Your task to perform on an android device: Do I have any events this weekend? Image 0: 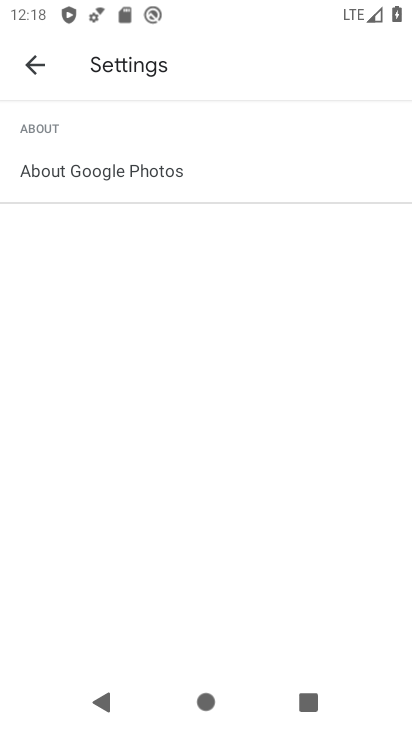
Step 0: press home button
Your task to perform on an android device: Do I have any events this weekend? Image 1: 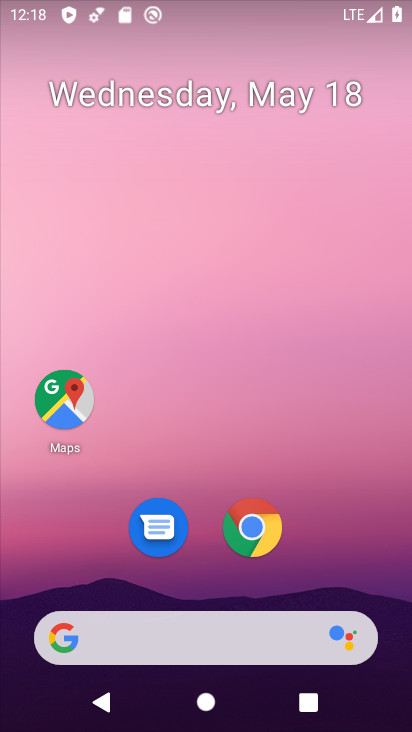
Step 1: click (237, 104)
Your task to perform on an android device: Do I have any events this weekend? Image 2: 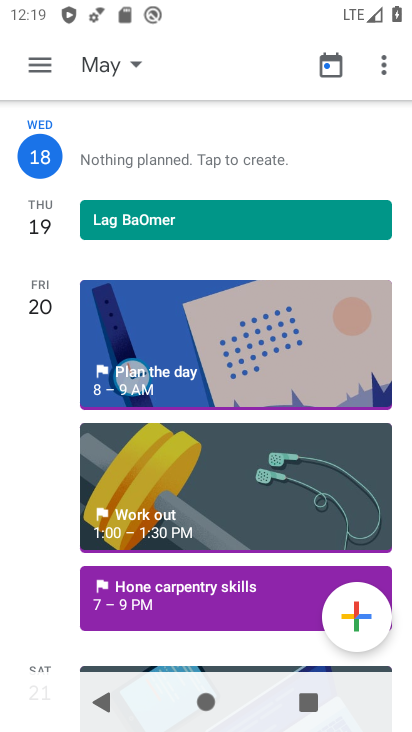
Step 2: click (43, 68)
Your task to perform on an android device: Do I have any events this weekend? Image 3: 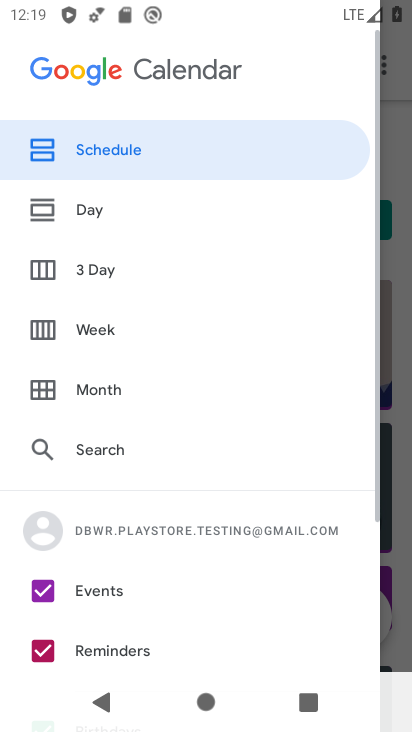
Step 3: click (101, 321)
Your task to perform on an android device: Do I have any events this weekend? Image 4: 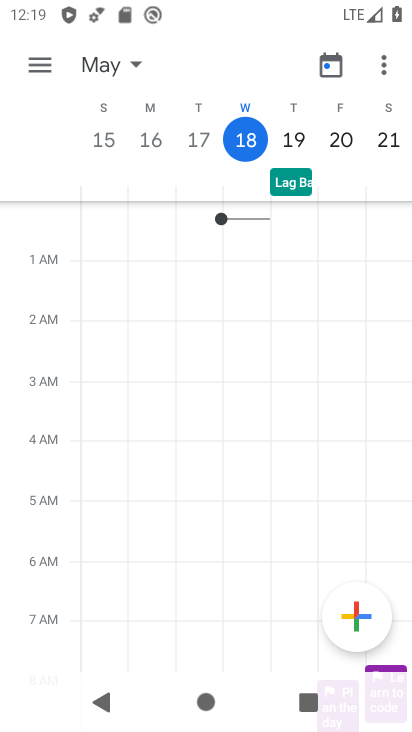
Step 4: task complete